Your task to perform on an android device: turn on notifications settings in the gmail app Image 0: 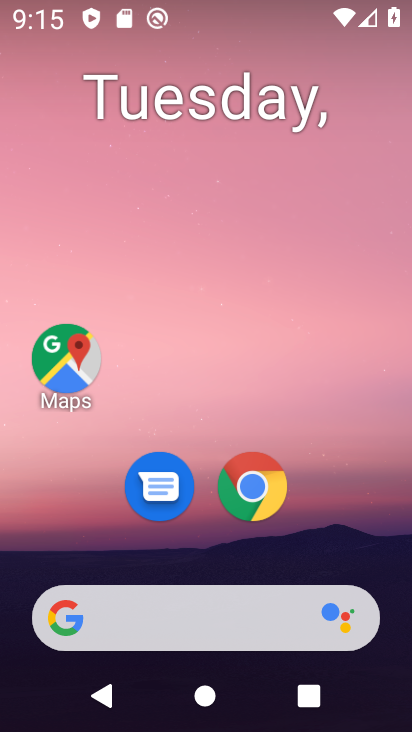
Step 0: press home button
Your task to perform on an android device: turn on notifications settings in the gmail app Image 1: 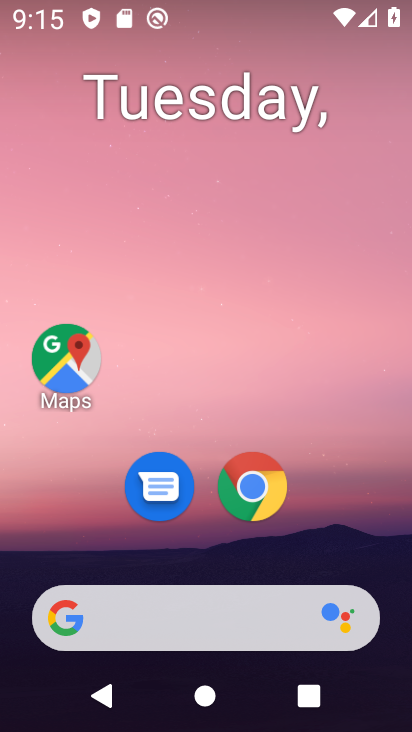
Step 1: drag from (359, 547) to (356, 235)
Your task to perform on an android device: turn on notifications settings in the gmail app Image 2: 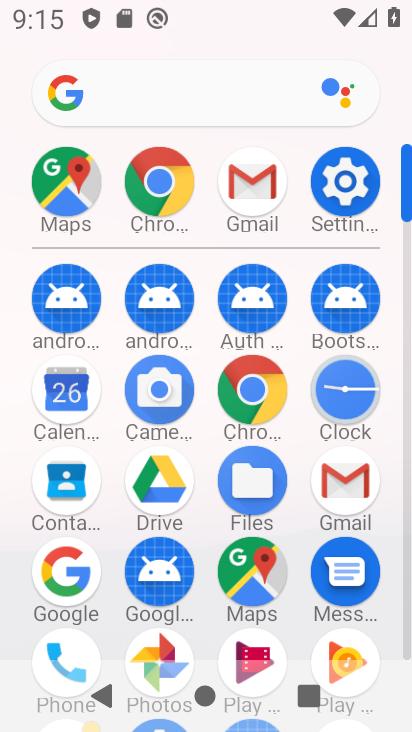
Step 2: click (344, 484)
Your task to perform on an android device: turn on notifications settings in the gmail app Image 3: 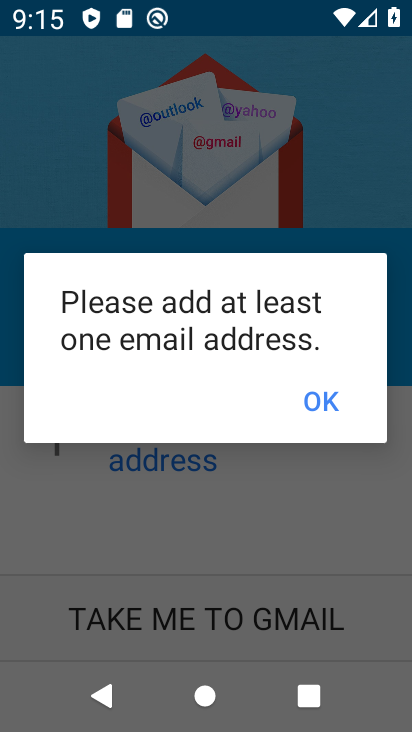
Step 3: task complete